Your task to perform on an android device: Go to Google maps Image 0: 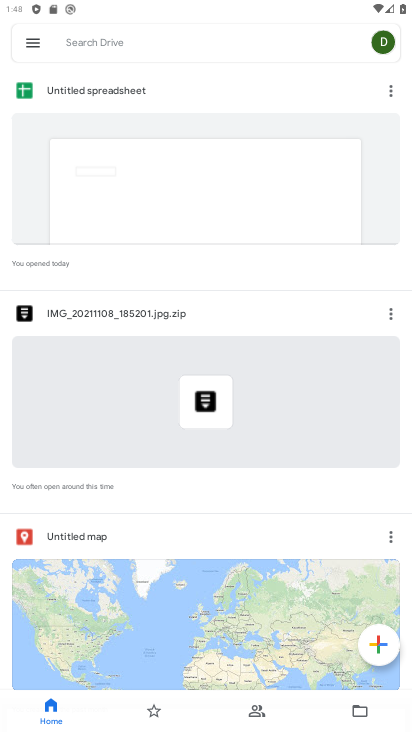
Step 0: press home button
Your task to perform on an android device: Go to Google maps Image 1: 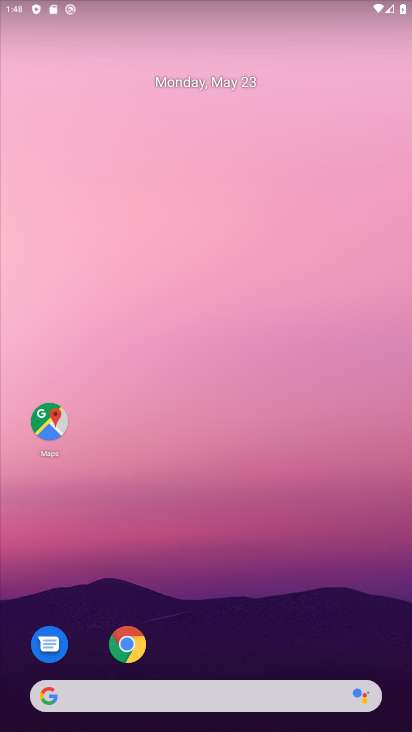
Step 1: drag from (310, 577) to (349, 5)
Your task to perform on an android device: Go to Google maps Image 2: 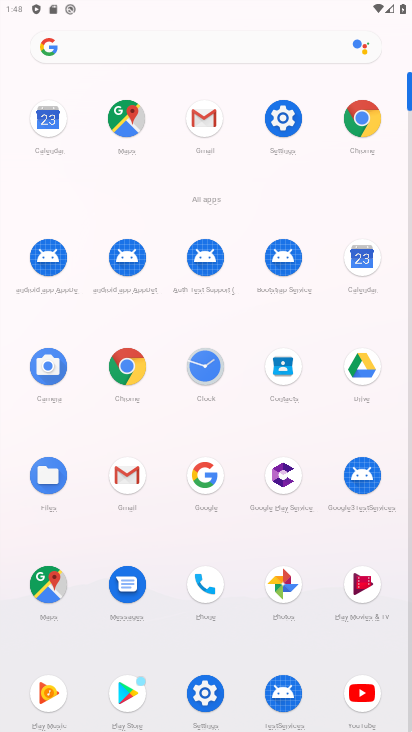
Step 2: click (121, 113)
Your task to perform on an android device: Go to Google maps Image 3: 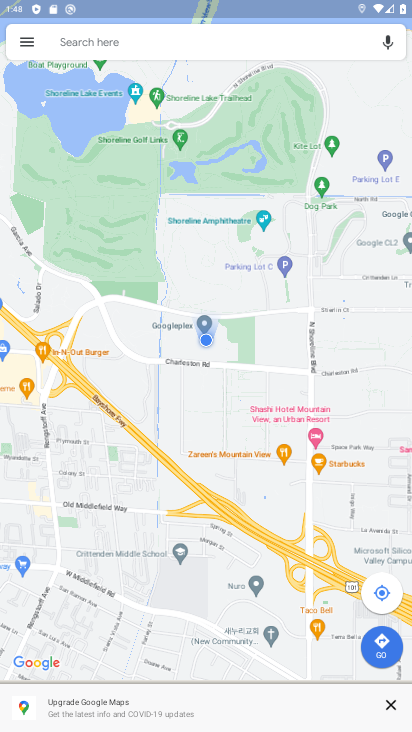
Step 3: task complete